Your task to perform on an android device: Go to location settings Image 0: 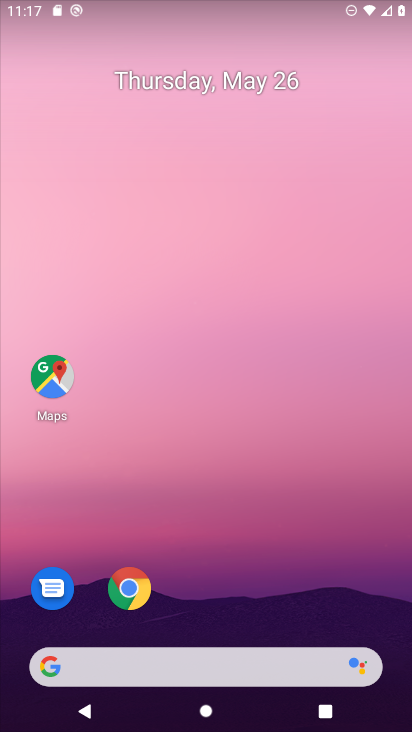
Step 0: drag from (380, 626) to (321, 44)
Your task to perform on an android device: Go to location settings Image 1: 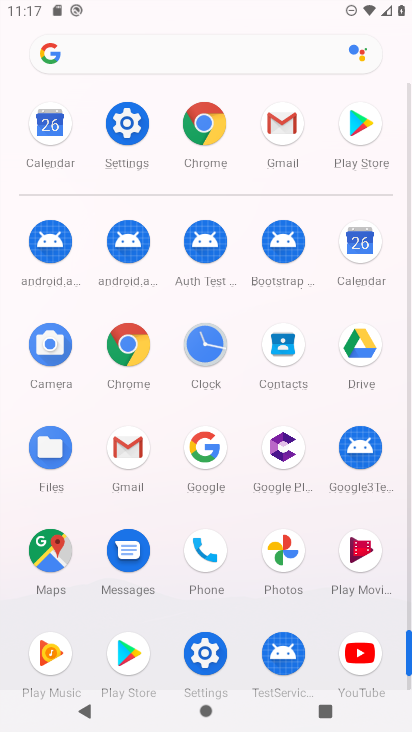
Step 1: click (205, 654)
Your task to perform on an android device: Go to location settings Image 2: 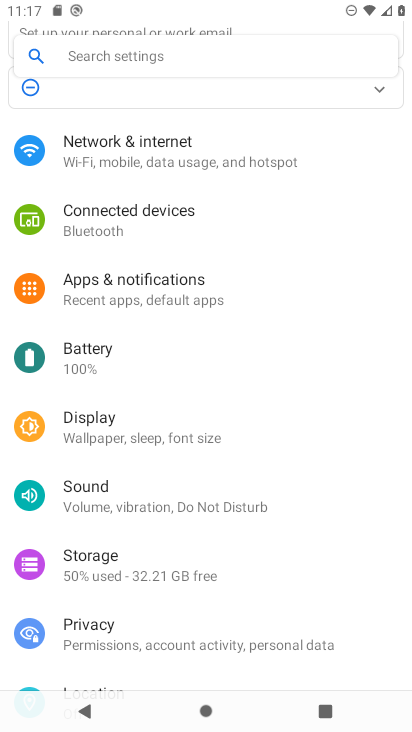
Step 2: drag from (294, 598) to (292, 193)
Your task to perform on an android device: Go to location settings Image 3: 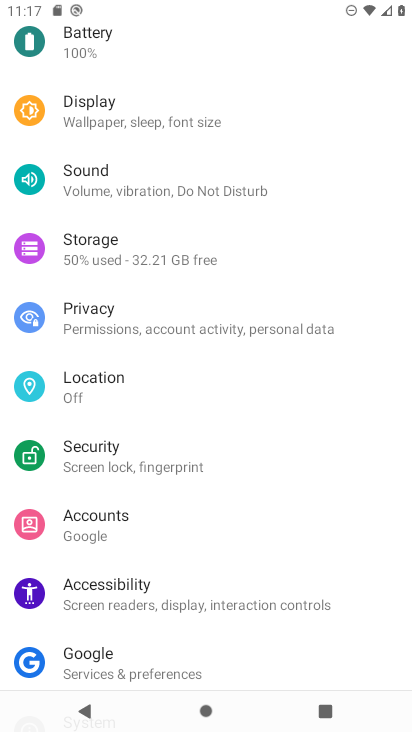
Step 3: click (93, 386)
Your task to perform on an android device: Go to location settings Image 4: 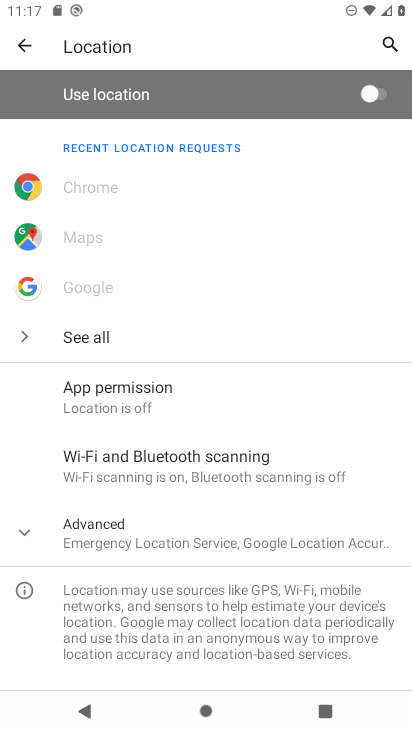
Step 4: click (30, 527)
Your task to perform on an android device: Go to location settings Image 5: 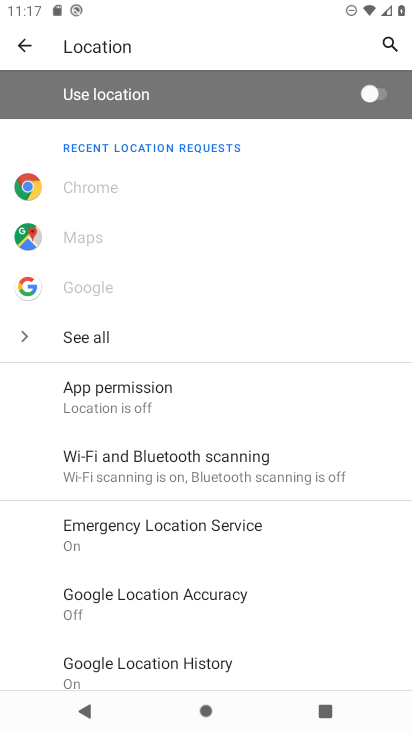
Step 5: task complete